Your task to perform on an android device: open app "Cash App" (install if not already installed) and enter user name: "submodules@gmail.com" and password: "heavenly" Image 0: 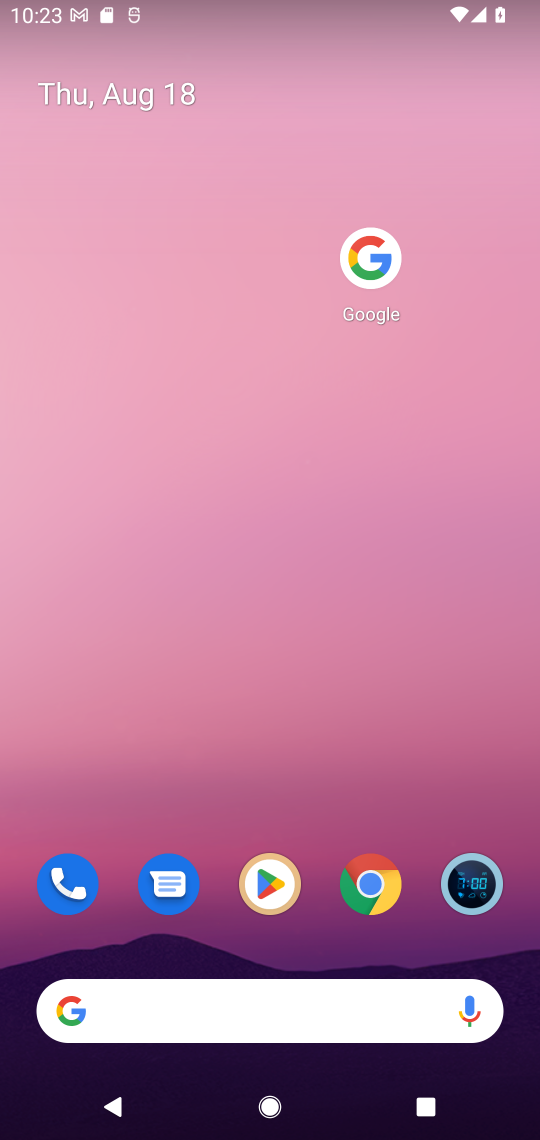
Step 0: click (268, 898)
Your task to perform on an android device: open app "Cash App" (install if not already installed) and enter user name: "submodules@gmail.com" and password: "heavenly" Image 1: 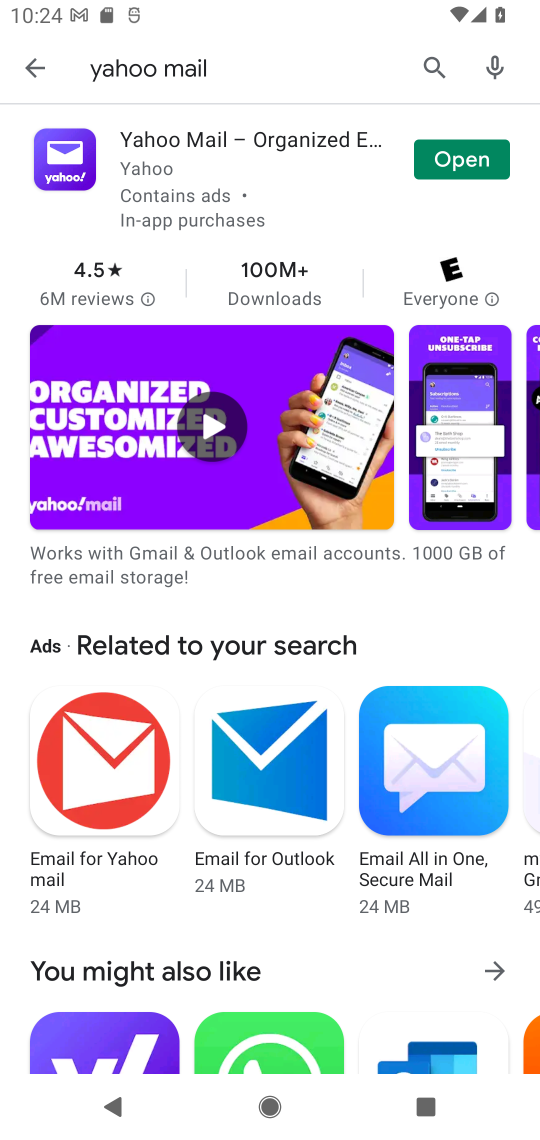
Step 1: click (440, 61)
Your task to perform on an android device: open app "Cash App" (install if not already installed) and enter user name: "submodules@gmail.com" and password: "heavenly" Image 2: 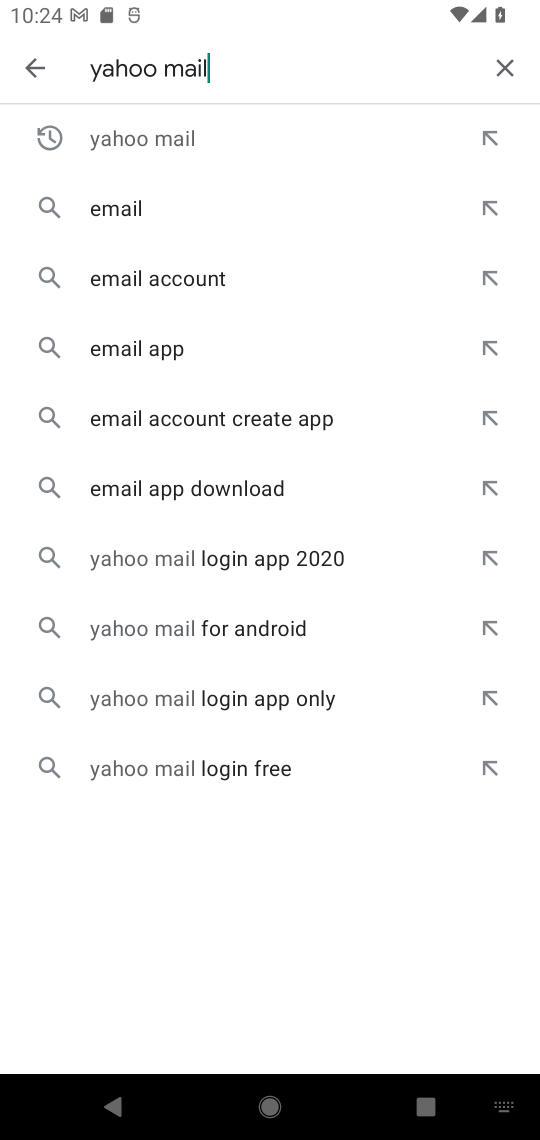
Step 2: click (502, 70)
Your task to perform on an android device: open app "Cash App" (install if not already installed) and enter user name: "submodules@gmail.com" and password: "heavenly" Image 3: 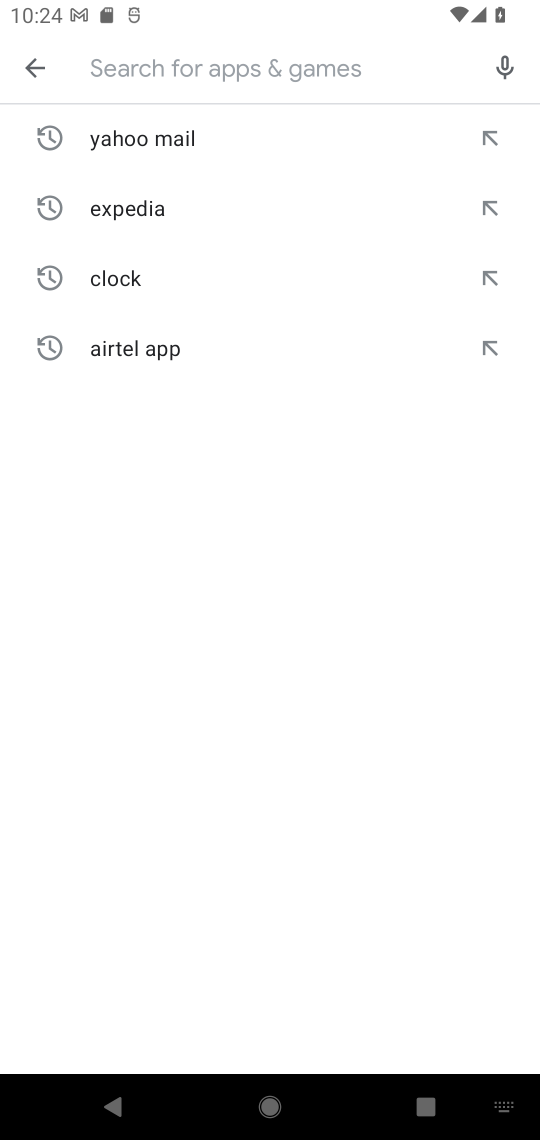
Step 3: type "cash app"
Your task to perform on an android device: open app "Cash App" (install if not already installed) and enter user name: "submodules@gmail.com" and password: "heavenly" Image 4: 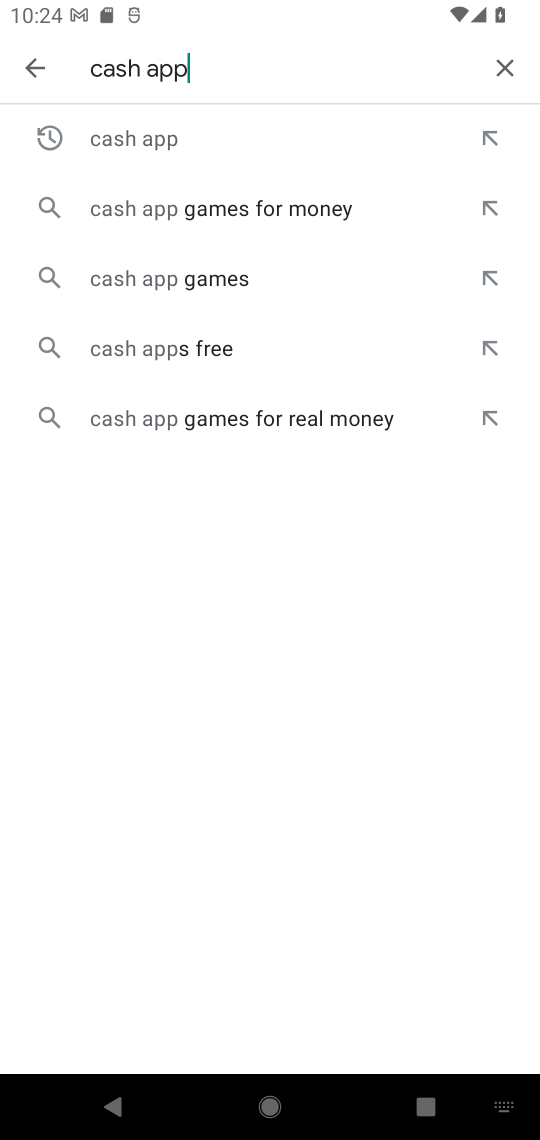
Step 4: click (187, 140)
Your task to perform on an android device: open app "Cash App" (install if not already installed) and enter user name: "submodules@gmail.com" and password: "heavenly" Image 5: 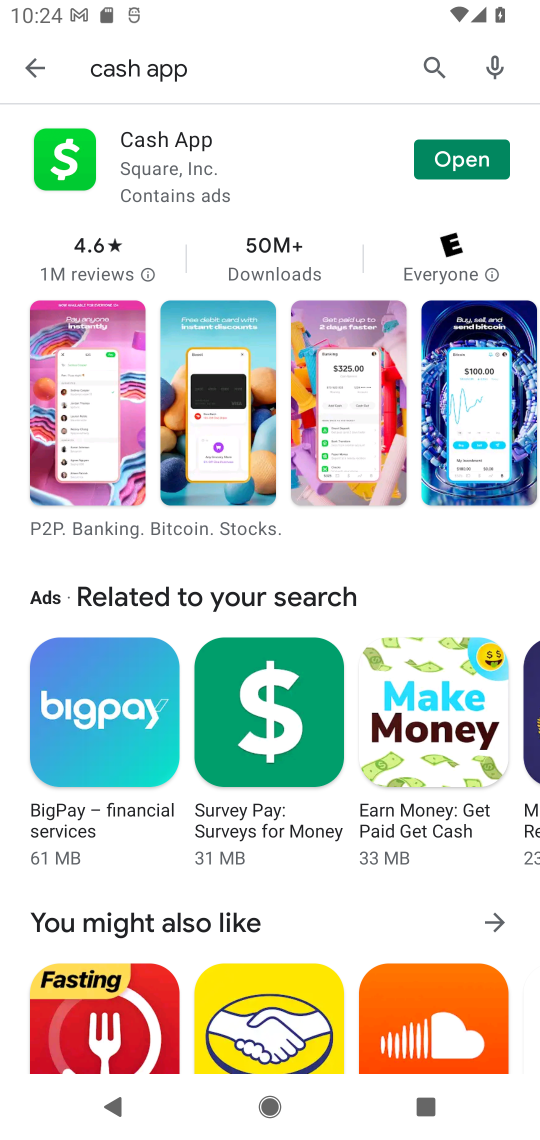
Step 5: click (444, 154)
Your task to perform on an android device: open app "Cash App" (install if not already installed) and enter user name: "submodules@gmail.com" and password: "heavenly" Image 6: 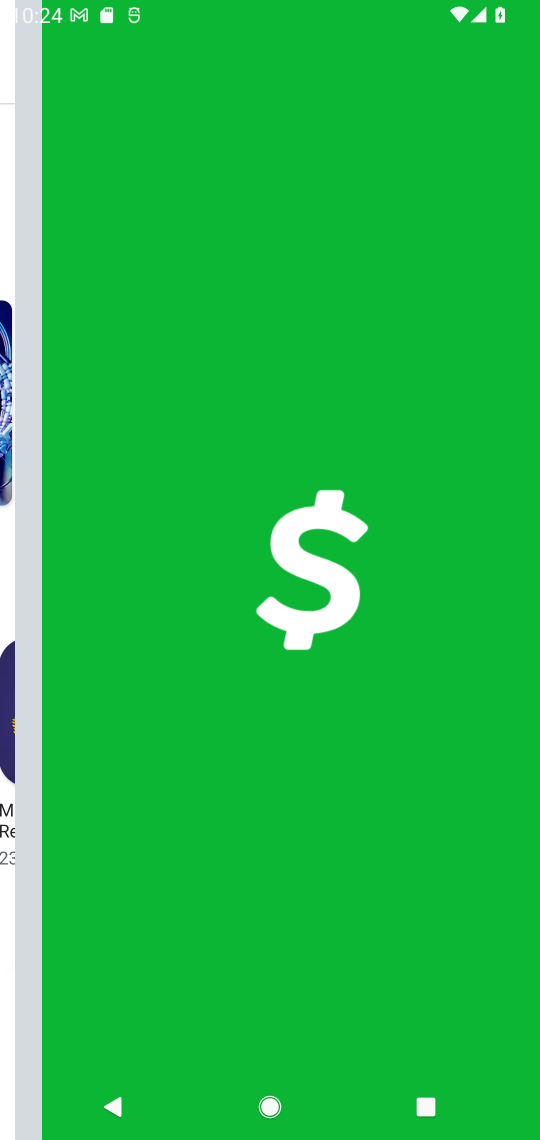
Step 6: task complete